Your task to perform on an android device: Open Google Chrome and open the bookmarks view Image 0: 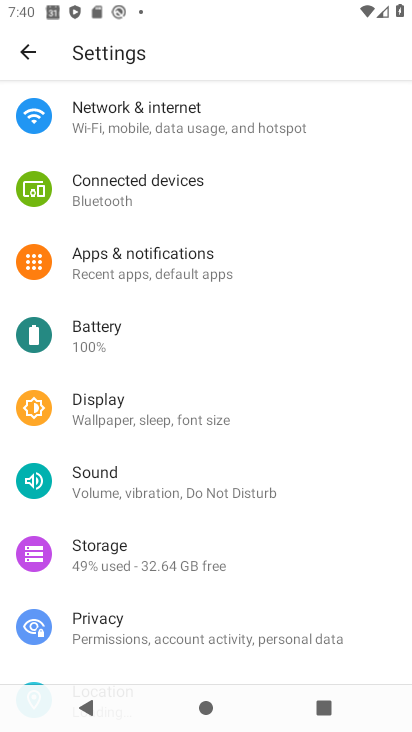
Step 0: press home button
Your task to perform on an android device: Open Google Chrome and open the bookmarks view Image 1: 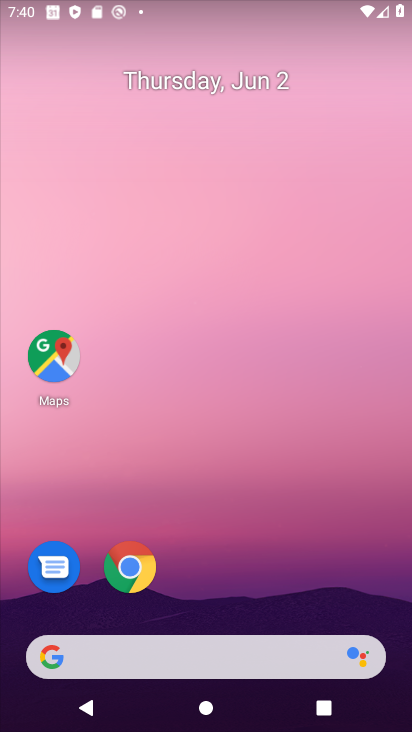
Step 1: drag from (365, 524) to (371, 76)
Your task to perform on an android device: Open Google Chrome and open the bookmarks view Image 2: 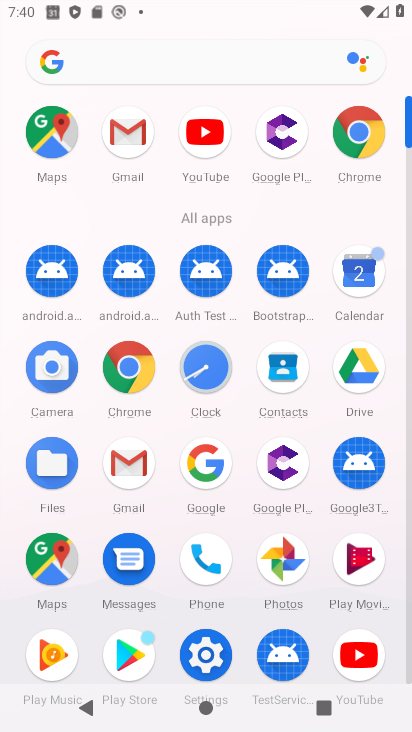
Step 2: click (140, 365)
Your task to perform on an android device: Open Google Chrome and open the bookmarks view Image 3: 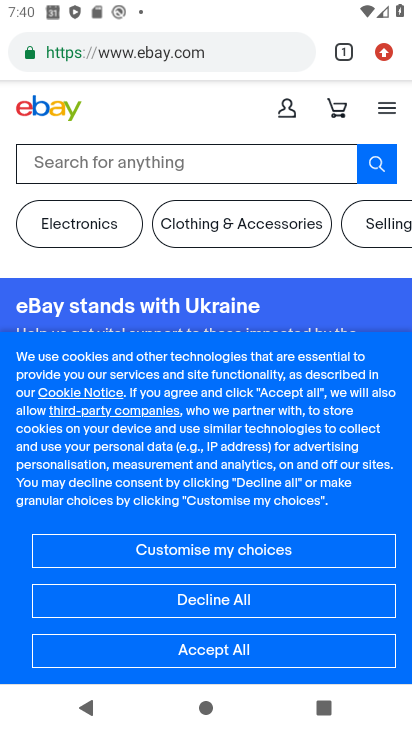
Step 3: click (384, 53)
Your task to perform on an android device: Open Google Chrome and open the bookmarks view Image 4: 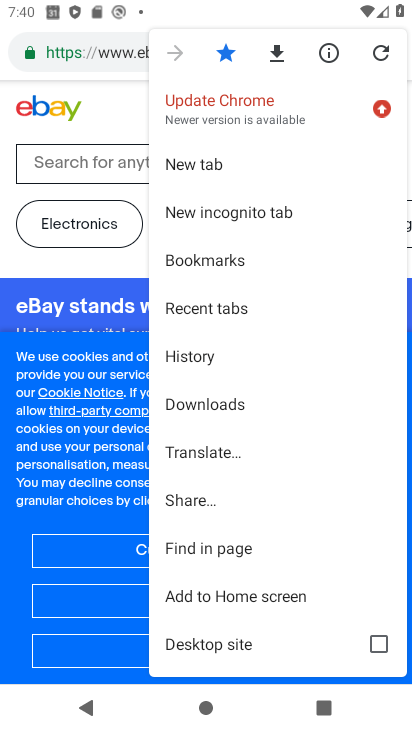
Step 4: click (249, 261)
Your task to perform on an android device: Open Google Chrome and open the bookmarks view Image 5: 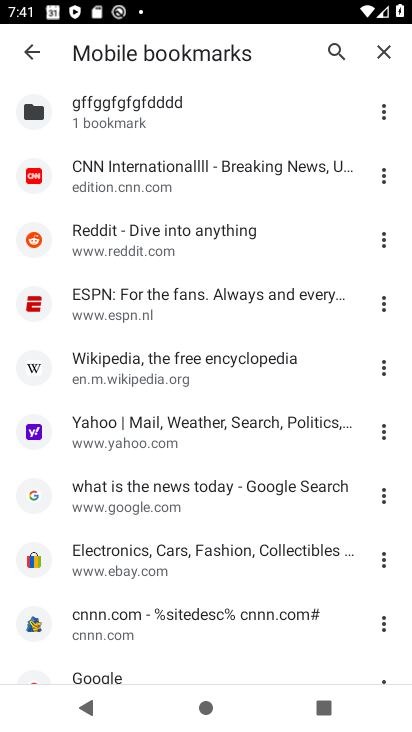
Step 5: task complete